Your task to perform on an android device: stop showing notifications on the lock screen Image 0: 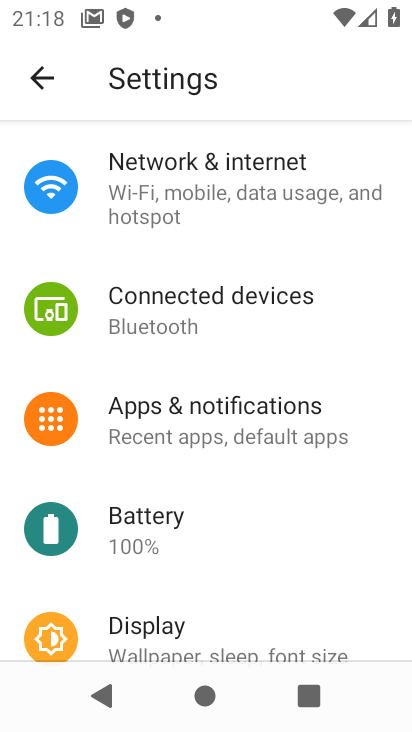
Step 0: click (187, 440)
Your task to perform on an android device: stop showing notifications on the lock screen Image 1: 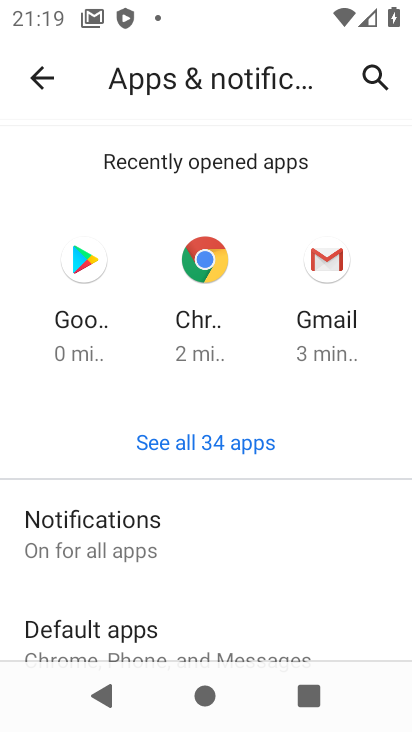
Step 1: drag from (135, 601) to (170, 149)
Your task to perform on an android device: stop showing notifications on the lock screen Image 2: 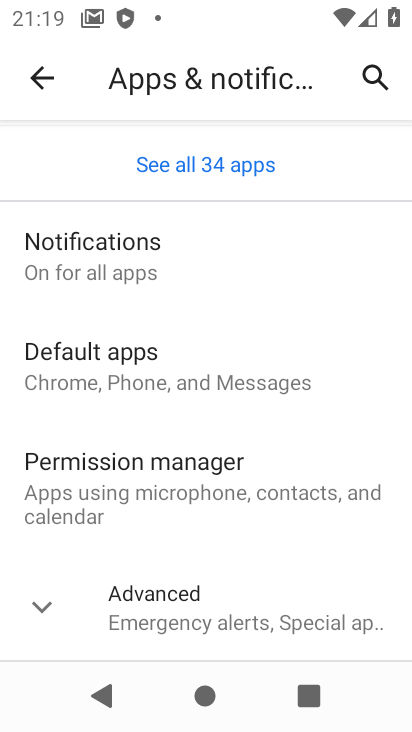
Step 2: click (116, 255)
Your task to perform on an android device: stop showing notifications on the lock screen Image 3: 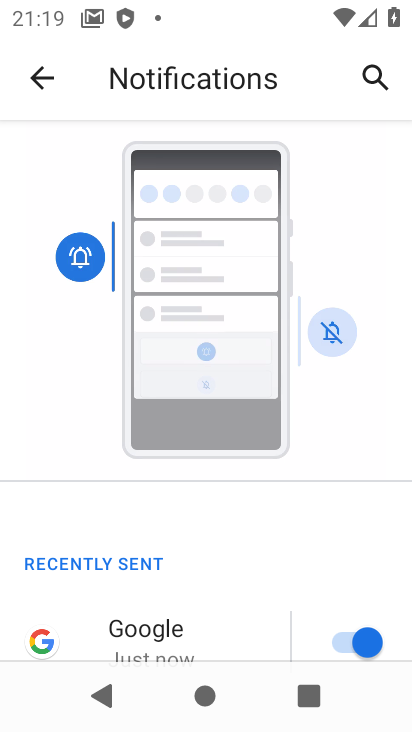
Step 3: drag from (81, 653) to (152, 140)
Your task to perform on an android device: stop showing notifications on the lock screen Image 4: 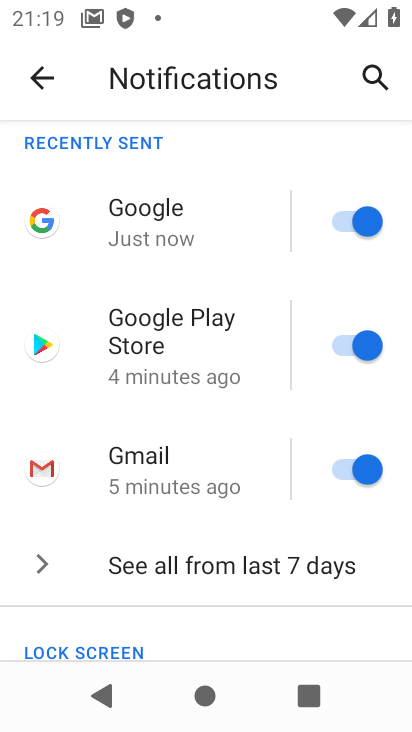
Step 4: drag from (163, 615) to (285, 117)
Your task to perform on an android device: stop showing notifications on the lock screen Image 5: 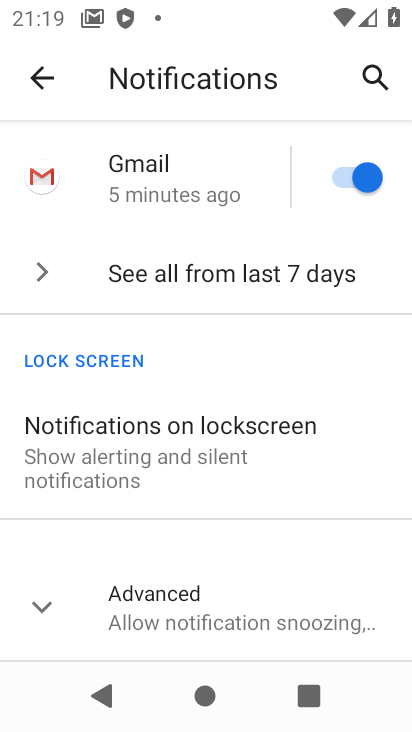
Step 5: click (206, 435)
Your task to perform on an android device: stop showing notifications on the lock screen Image 6: 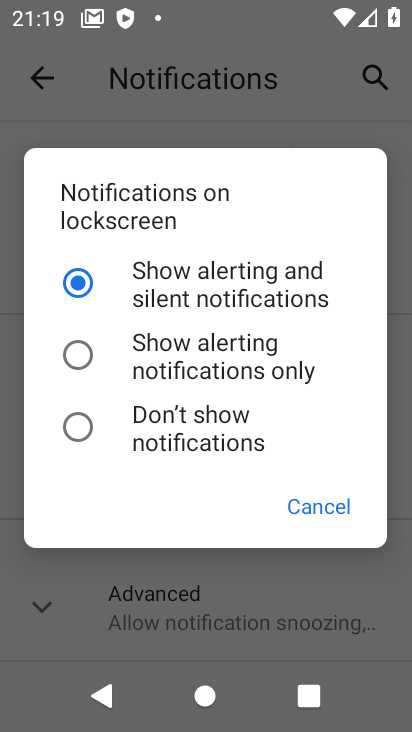
Step 6: click (122, 449)
Your task to perform on an android device: stop showing notifications on the lock screen Image 7: 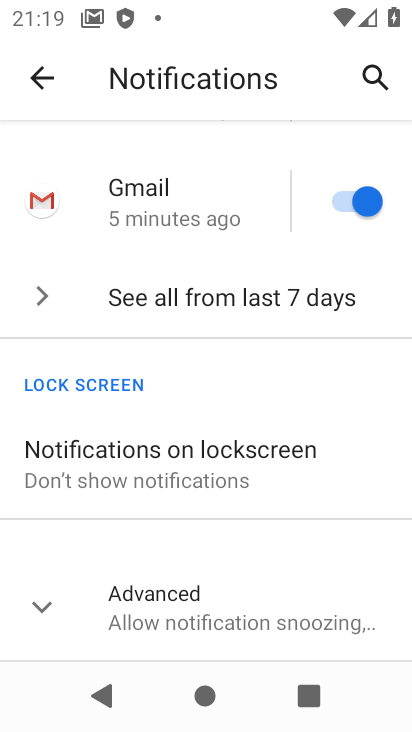
Step 7: task complete